Your task to perform on an android device: add a label to a message in the gmail app Image 0: 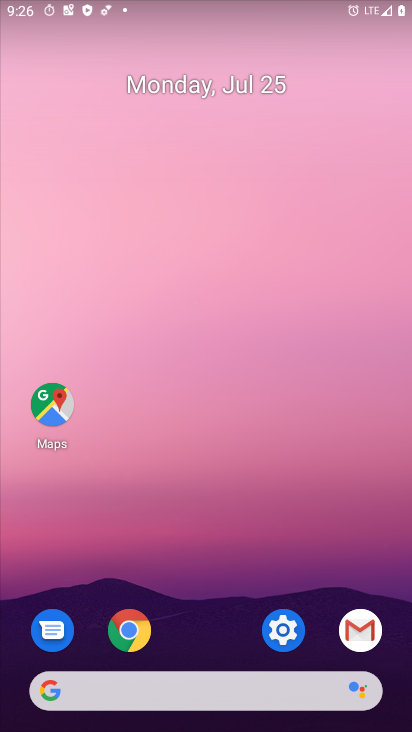
Step 0: drag from (238, 691) to (321, 99)
Your task to perform on an android device: add a label to a message in the gmail app Image 1: 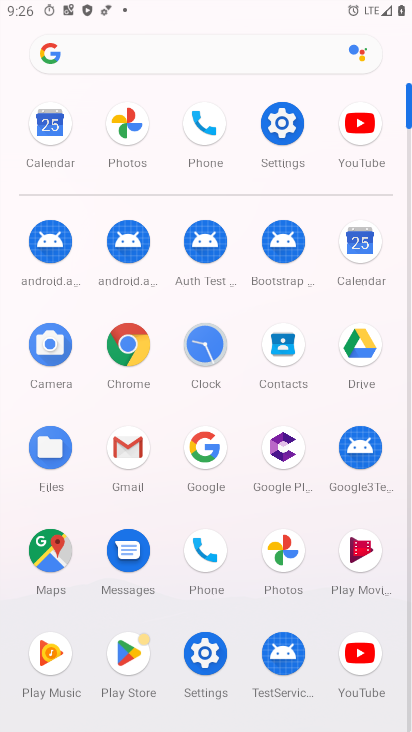
Step 1: click (118, 457)
Your task to perform on an android device: add a label to a message in the gmail app Image 2: 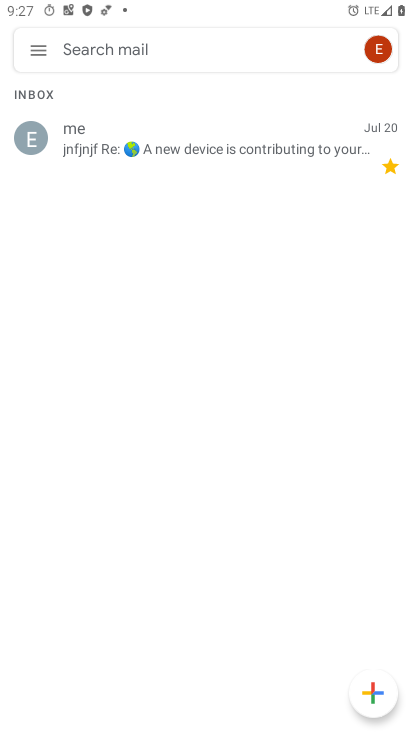
Step 2: click (44, 42)
Your task to perform on an android device: add a label to a message in the gmail app Image 3: 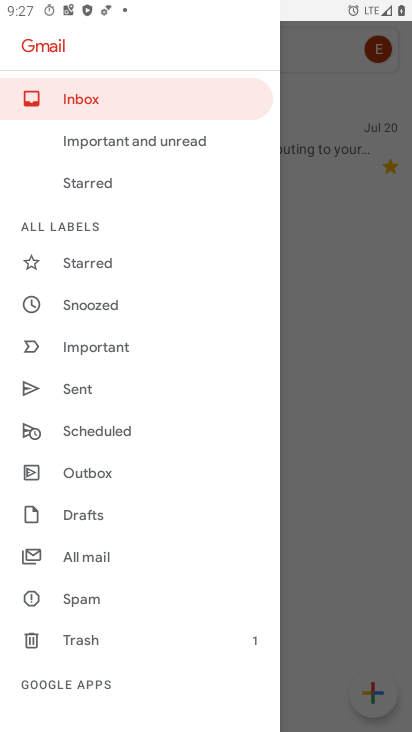
Step 3: drag from (86, 681) to (244, 409)
Your task to perform on an android device: add a label to a message in the gmail app Image 4: 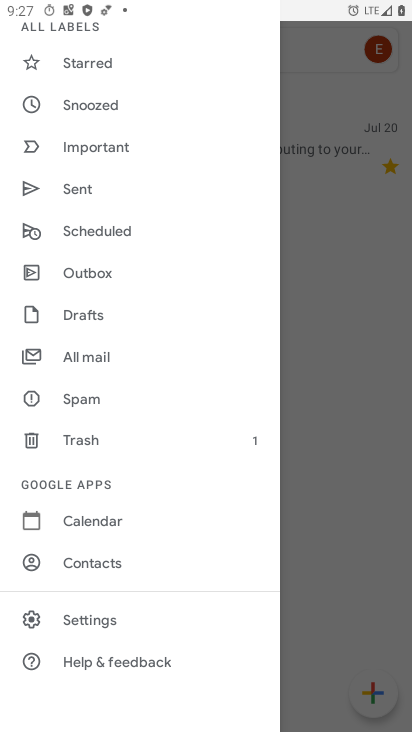
Step 4: click (100, 617)
Your task to perform on an android device: add a label to a message in the gmail app Image 5: 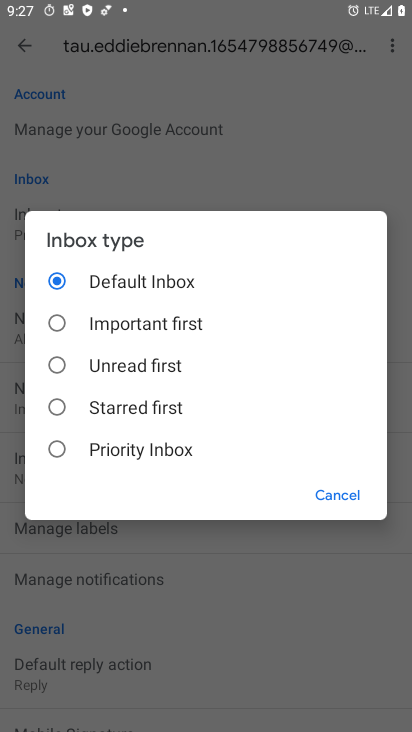
Step 5: click (324, 500)
Your task to perform on an android device: add a label to a message in the gmail app Image 6: 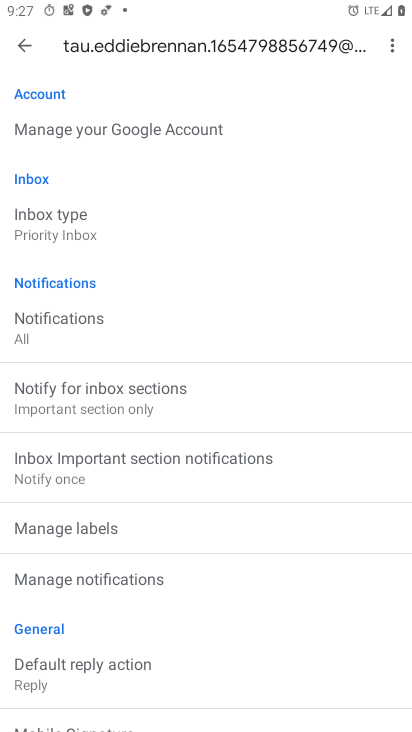
Step 6: click (128, 521)
Your task to perform on an android device: add a label to a message in the gmail app Image 7: 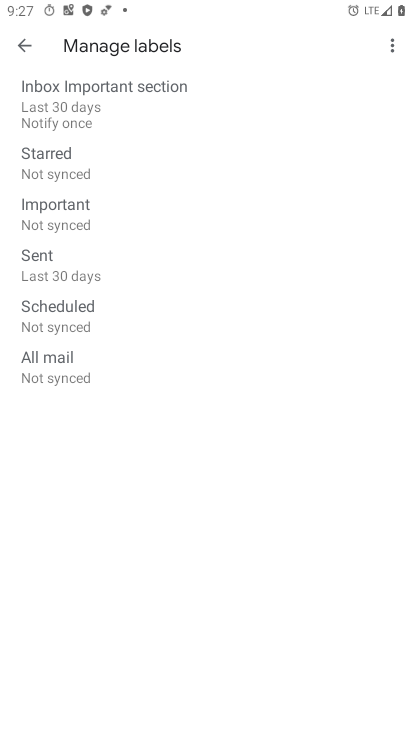
Step 7: click (97, 96)
Your task to perform on an android device: add a label to a message in the gmail app Image 8: 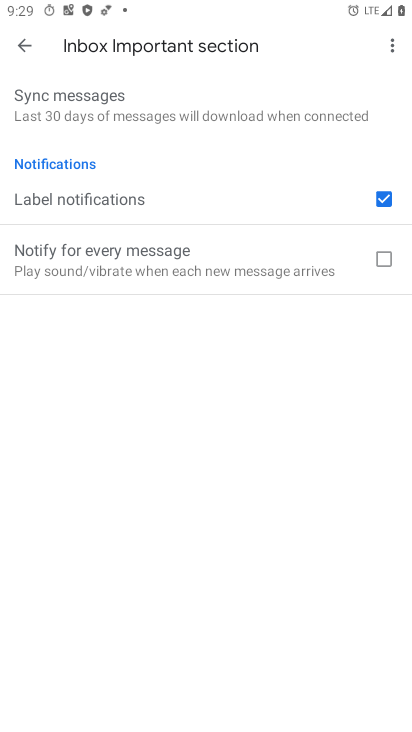
Step 8: task complete